Your task to perform on an android device: Open Chrome and go to settings Image 0: 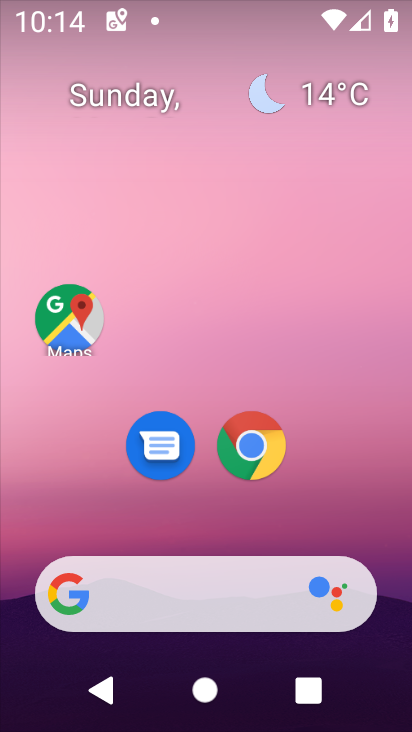
Step 0: click (245, 167)
Your task to perform on an android device: Open Chrome and go to settings Image 1: 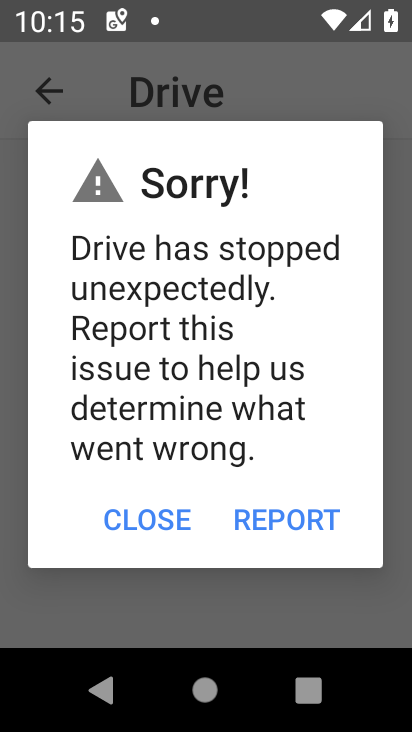
Step 1: press home button
Your task to perform on an android device: Open Chrome and go to settings Image 2: 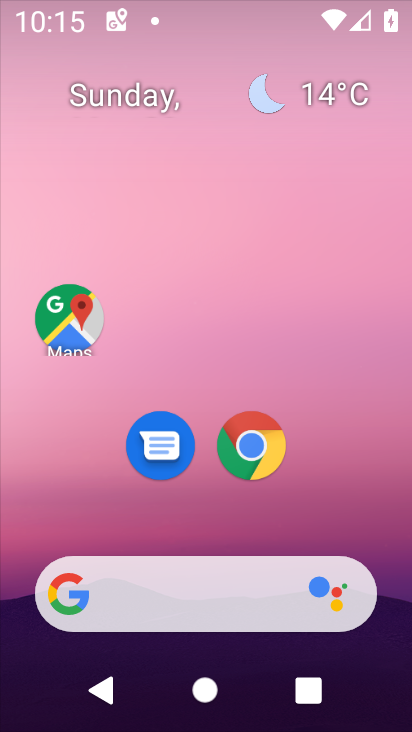
Step 2: drag from (217, 540) to (260, 78)
Your task to perform on an android device: Open Chrome and go to settings Image 3: 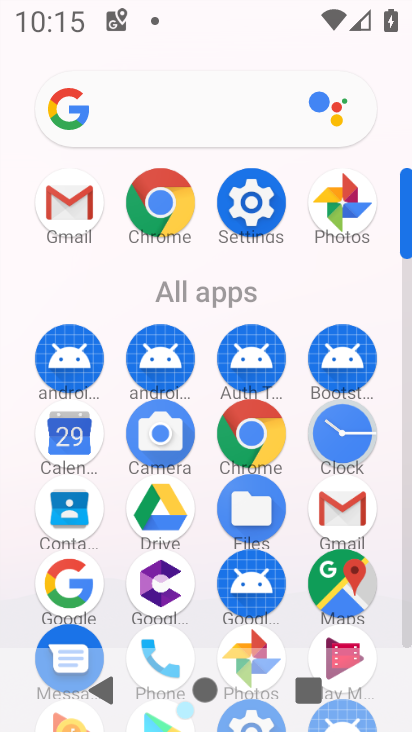
Step 3: click (165, 195)
Your task to perform on an android device: Open Chrome and go to settings Image 4: 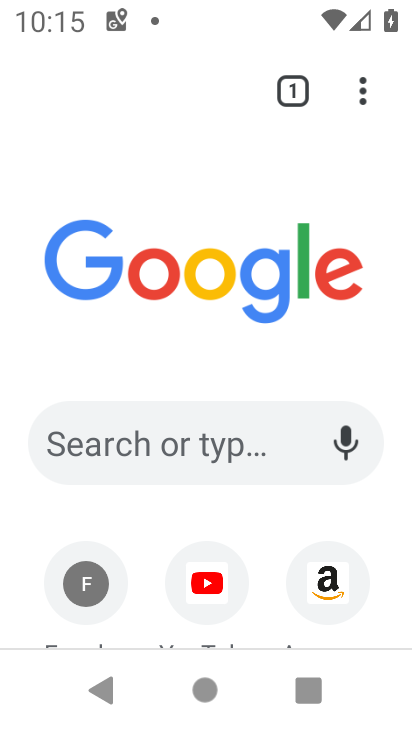
Step 4: task complete